Your task to perform on an android device: check android version Image 0: 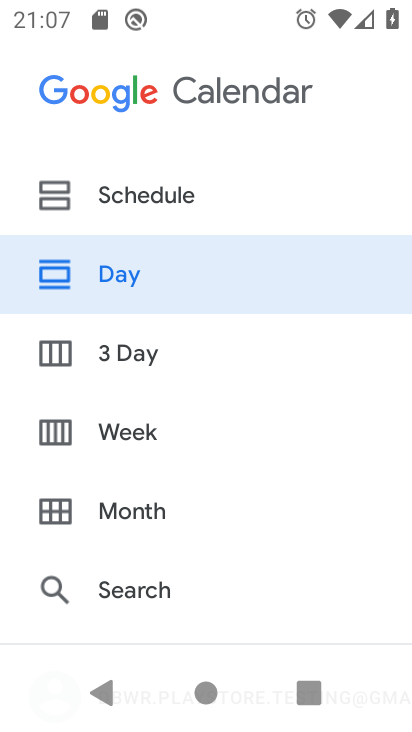
Step 0: press home button
Your task to perform on an android device: check android version Image 1: 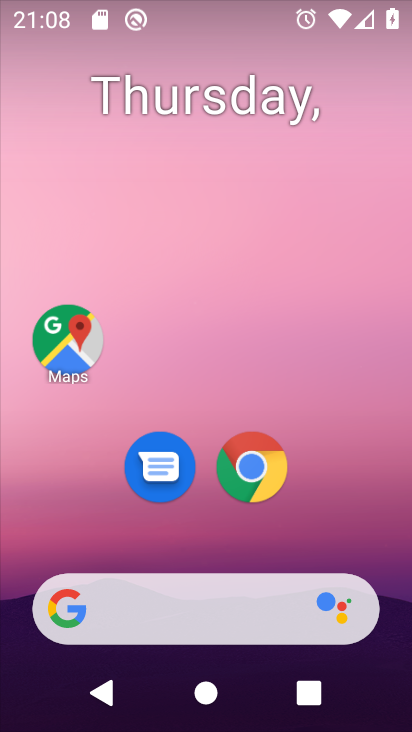
Step 1: drag from (287, 533) to (354, 243)
Your task to perform on an android device: check android version Image 2: 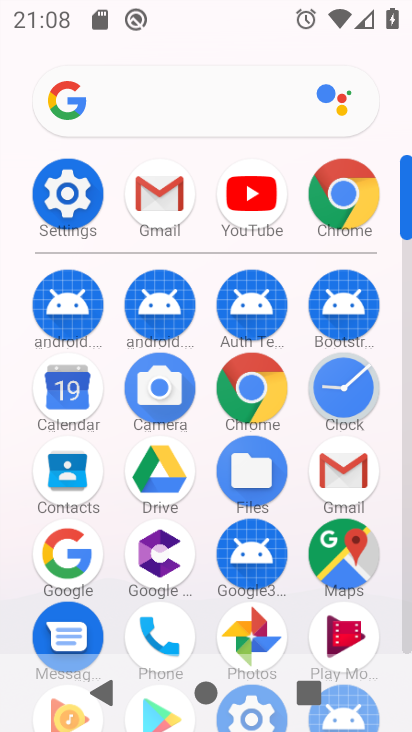
Step 2: click (47, 192)
Your task to perform on an android device: check android version Image 3: 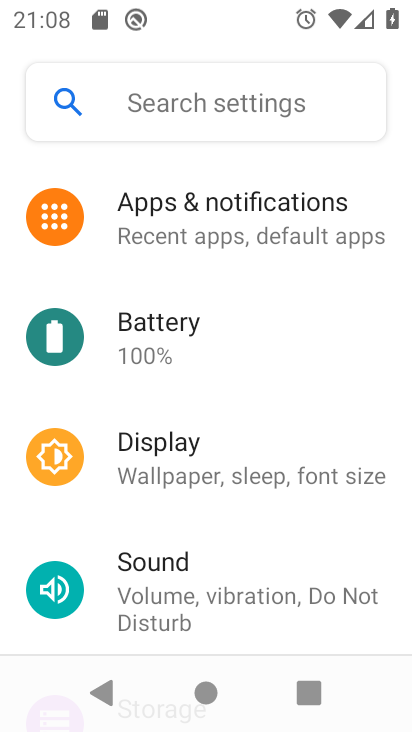
Step 3: drag from (273, 535) to (319, 91)
Your task to perform on an android device: check android version Image 4: 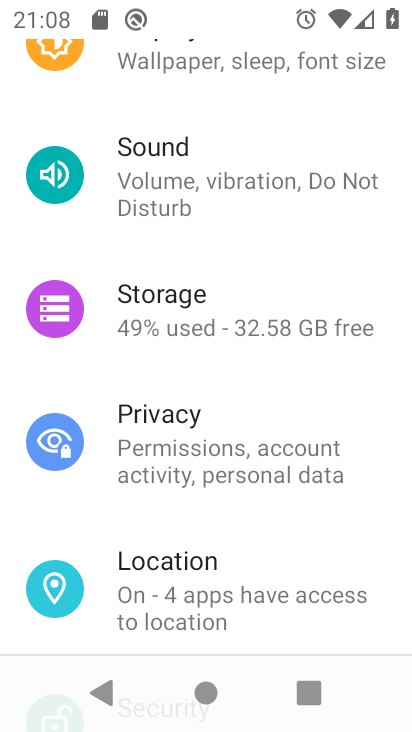
Step 4: drag from (185, 561) to (299, 199)
Your task to perform on an android device: check android version Image 5: 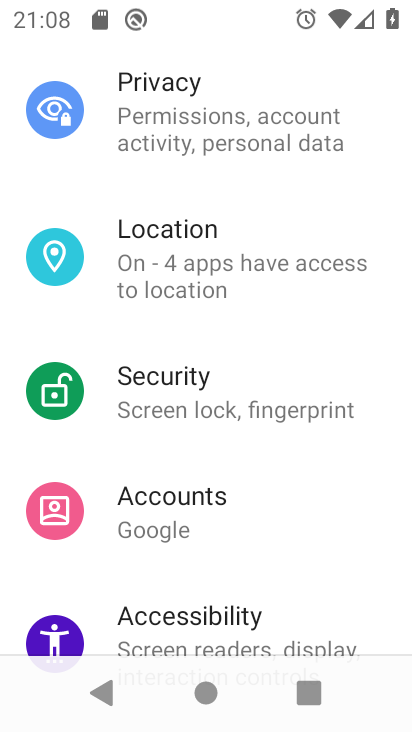
Step 5: drag from (239, 577) to (261, 202)
Your task to perform on an android device: check android version Image 6: 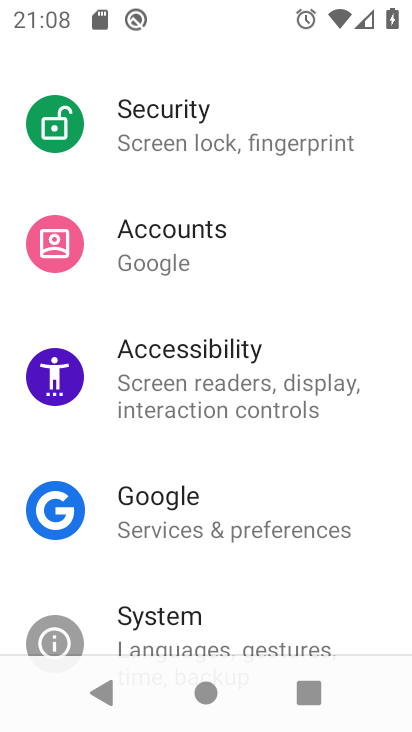
Step 6: drag from (209, 590) to (249, 459)
Your task to perform on an android device: check android version Image 7: 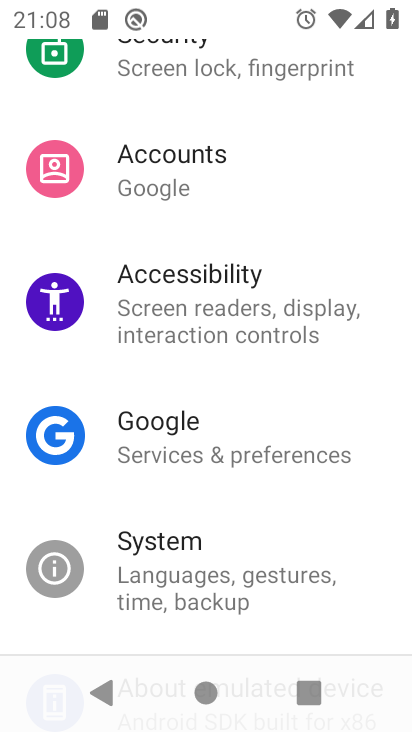
Step 7: drag from (184, 571) to (258, 204)
Your task to perform on an android device: check android version Image 8: 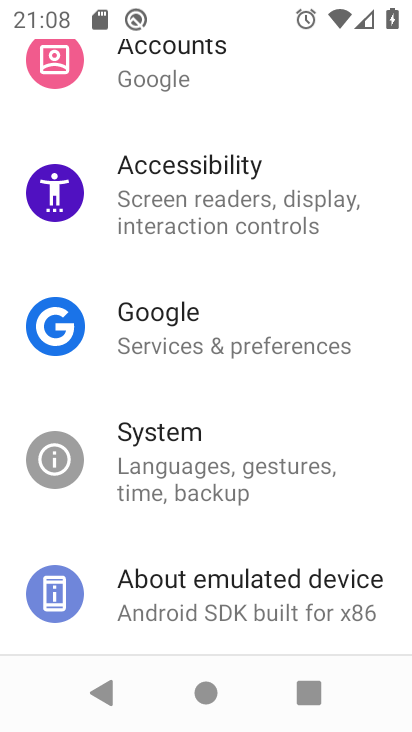
Step 8: click (165, 595)
Your task to perform on an android device: check android version Image 9: 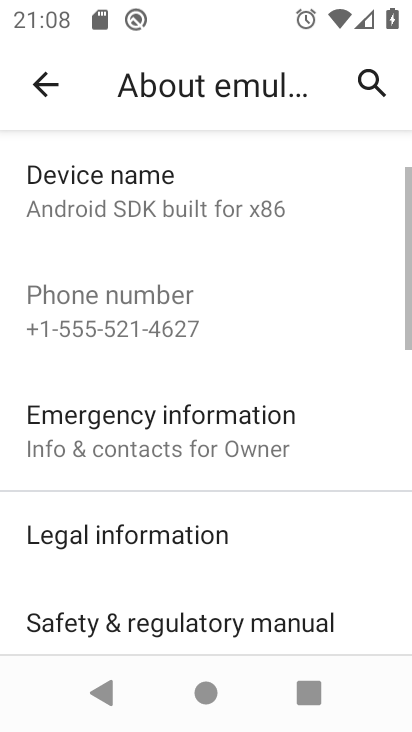
Step 9: task complete